Your task to perform on an android device: open a new tab in the chrome app Image 0: 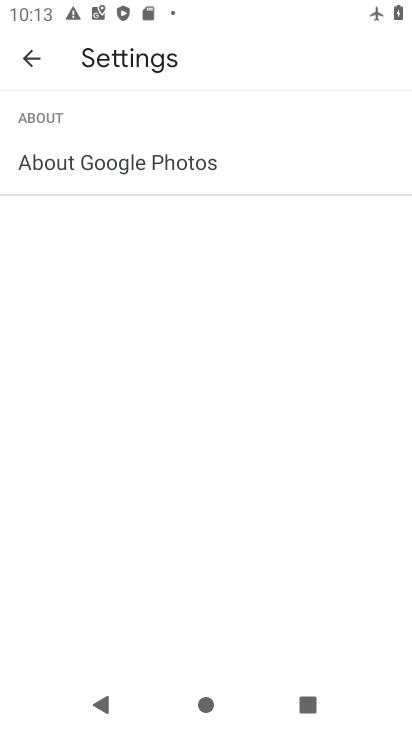
Step 0: press home button
Your task to perform on an android device: open a new tab in the chrome app Image 1: 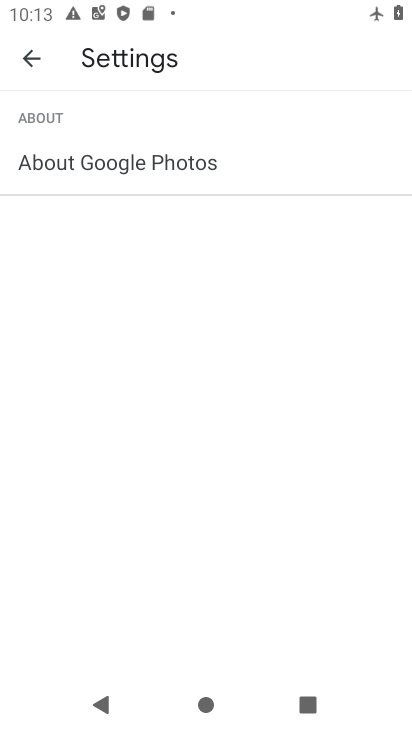
Step 1: press home button
Your task to perform on an android device: open a new tab in the chrome app Image 2: 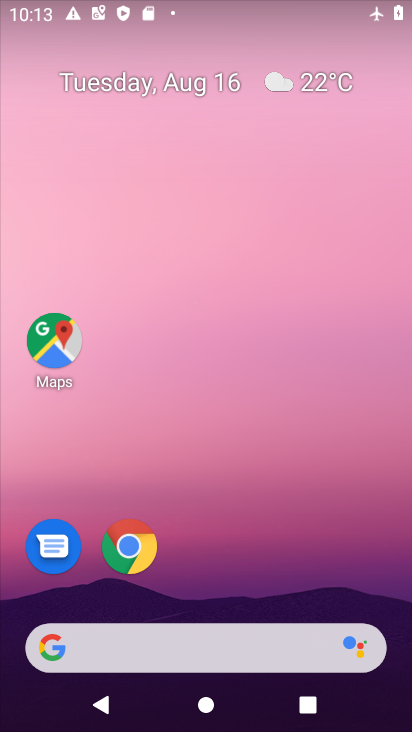
Step 2: click (130, 541)
Your task to perform on an android device: open a new tab in the chrome app Image 3: 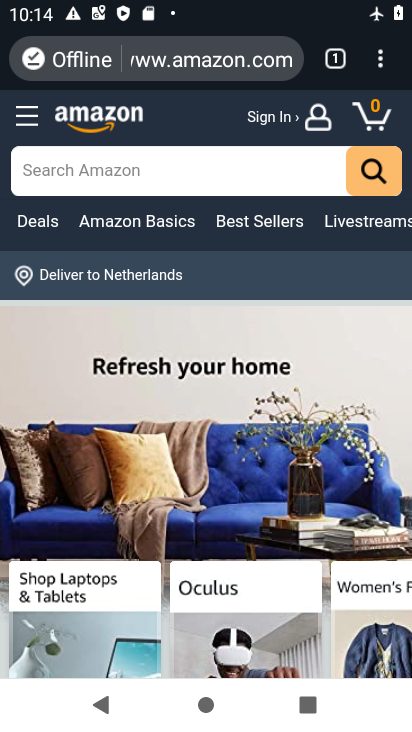
Step 3: click (386, 64)
Your task to perform on an android device: open a new tab in the chrome app Image 4: 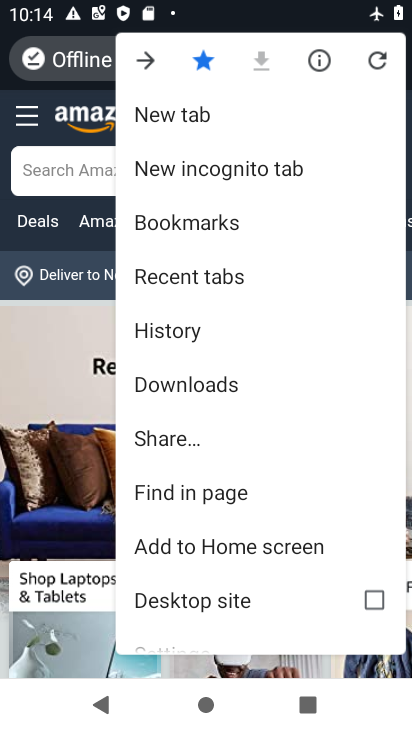
Step 4: click (208, 112)
Your task to perform on an android device: open a new tab in the chrome app Image 5: 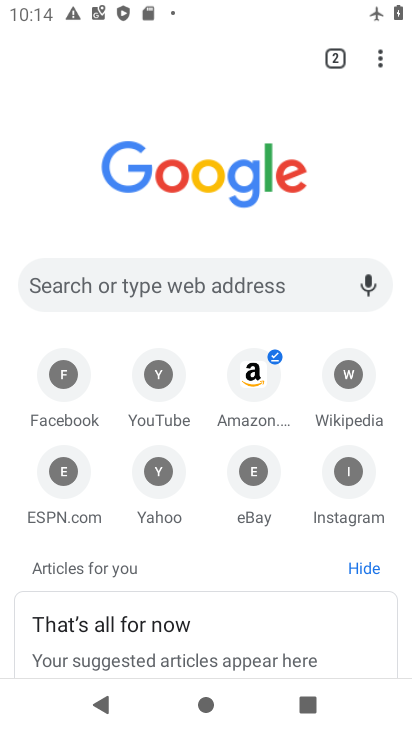
Step 5: task complete